Your task to perform on an android device: What's the news this week? Image 0: 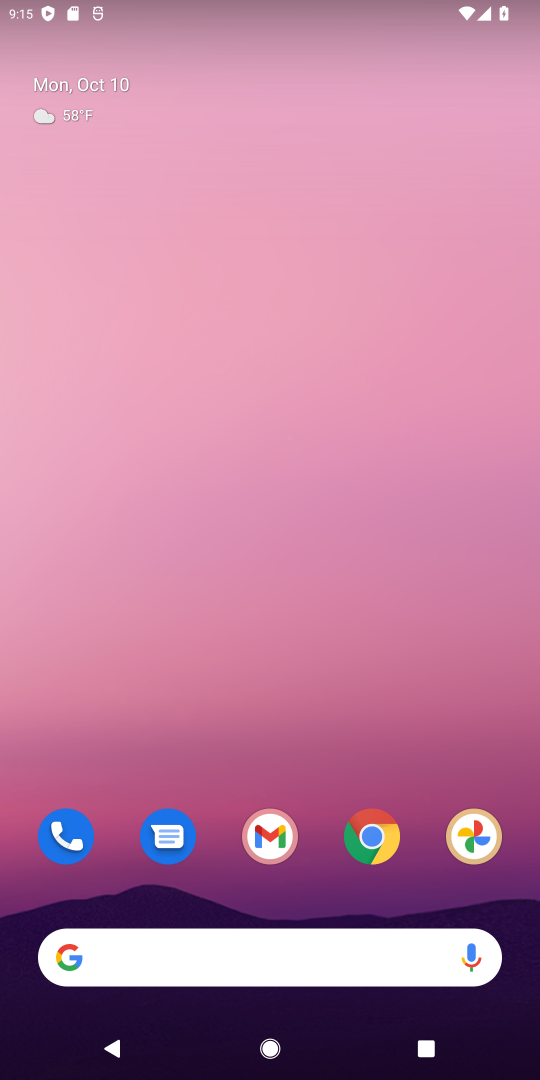
Step 0: drag from (188, 949) to (452, 53)
Your task to perform on an android device: What's the news this week? Image 1: 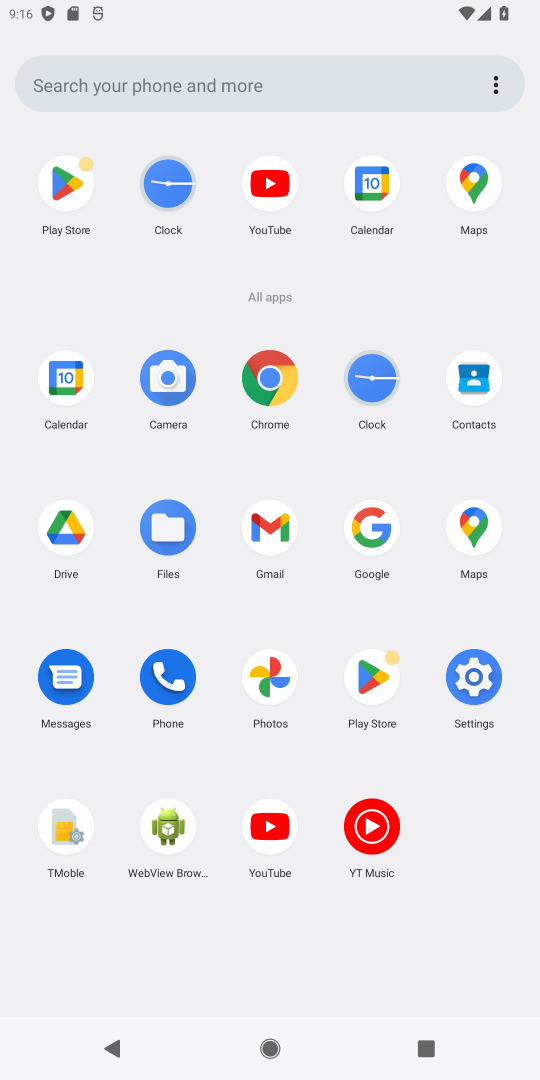
Step 1: click (372, 525)
Your task to perform on an android device: What's the news this week? Image 2: 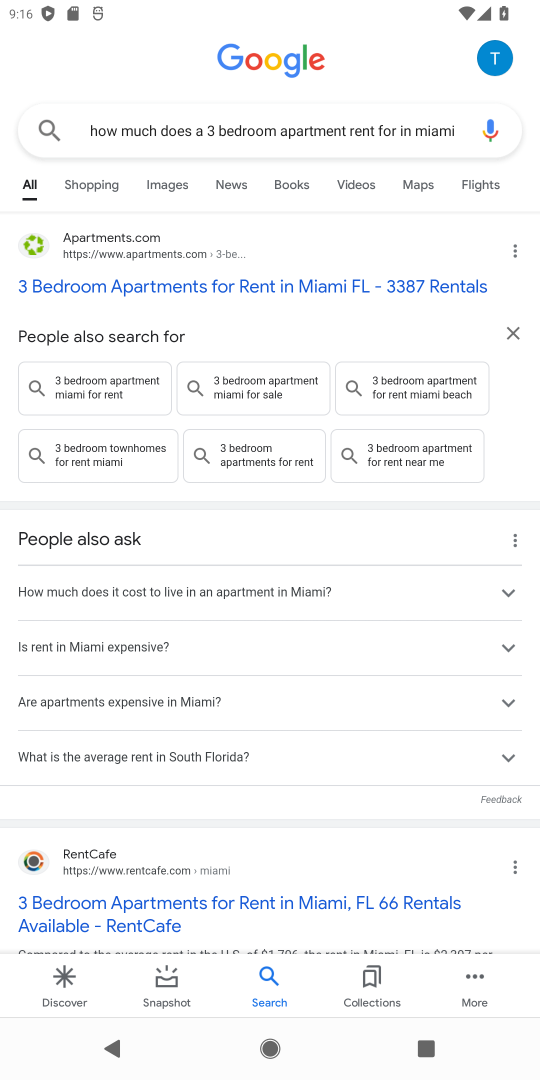
Step 2: click (331, 132)
Your task to perform on an android device: What's the news this week? Image 3: 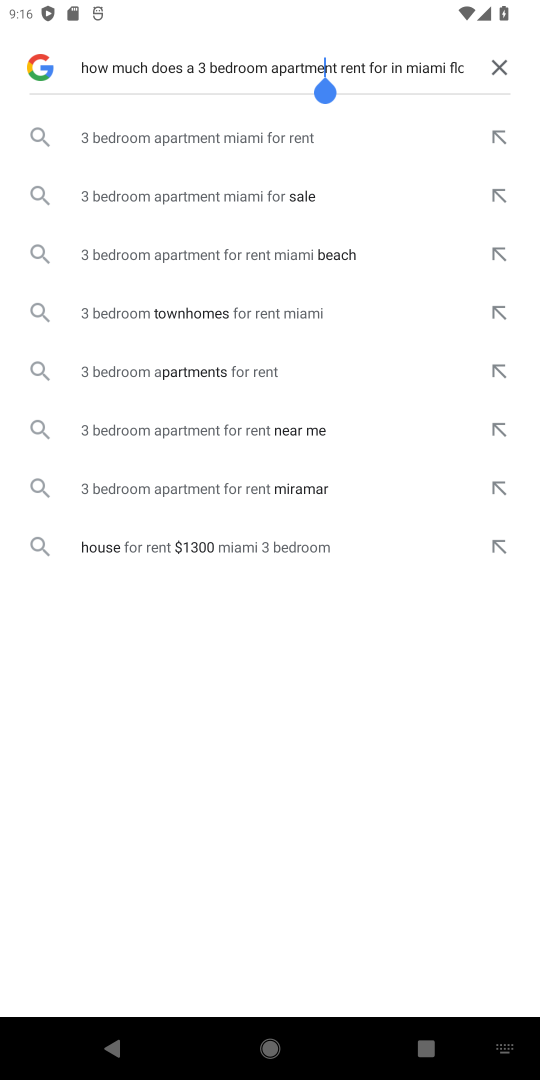
Step 3: click (502, 69)
Your task to perform on an android device: What's the news this week? Image 4: 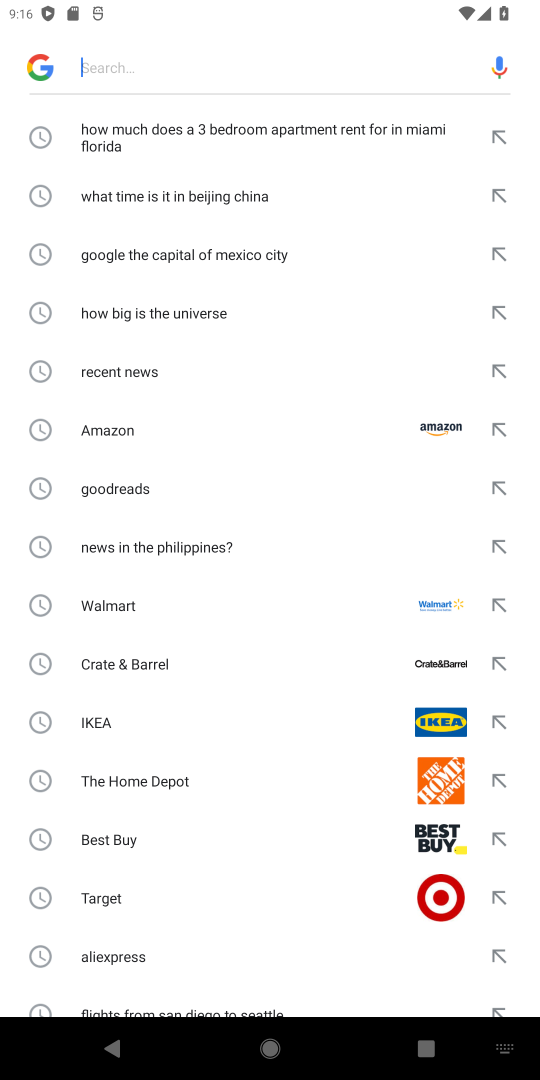
Step 4: click (175, 62)
Your task to perform on an android device: What's the news this week? Image 5: 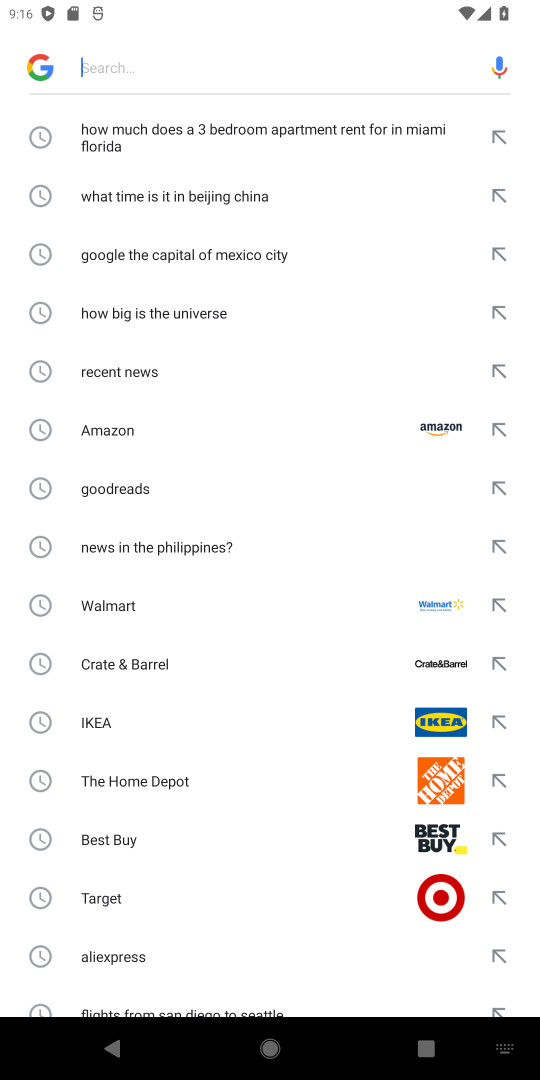
Step 5: type "What's the news this week?"
Your task to perform on an android device: What's the news this week? Image 6: 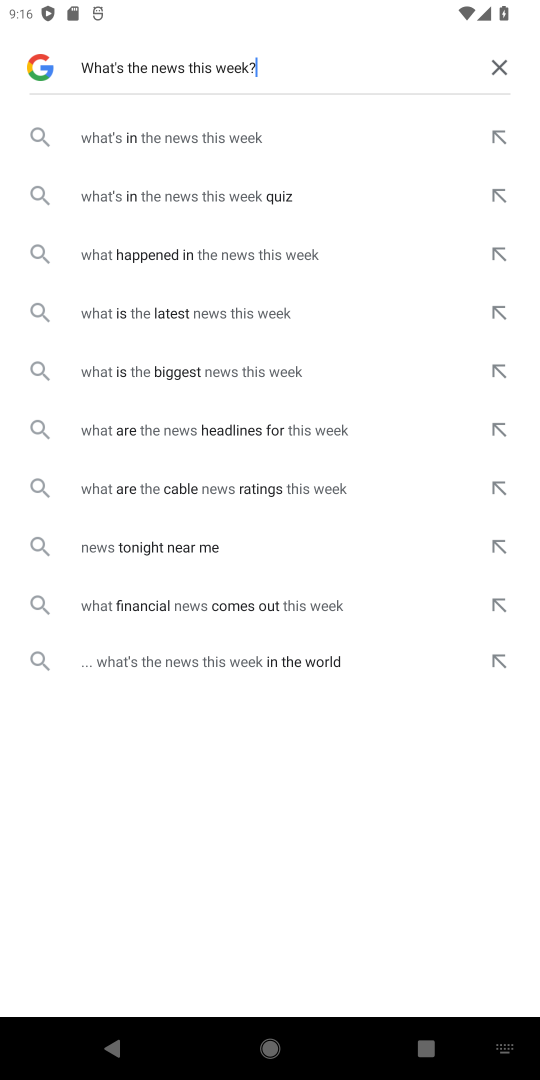
Step 6: click (233, 137)
Your task to perform on an android device: What's the news this week? Image 7: 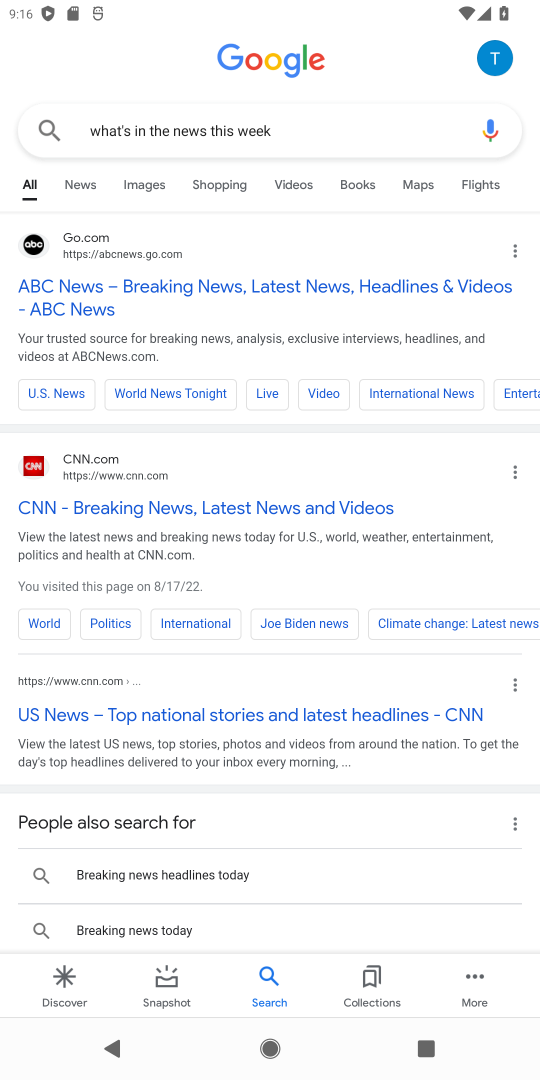
Step 7: click (218, 285)
Your task to perform on an android device: What's the news this week? Image 8: 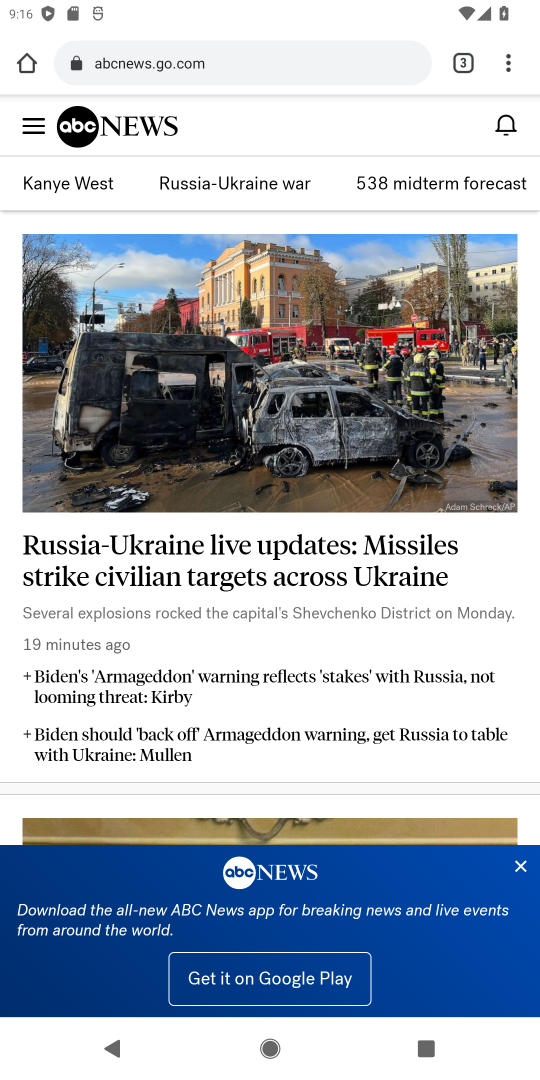
Step 8: task complete